Your task to perform on an android device: Open settings Image 0: 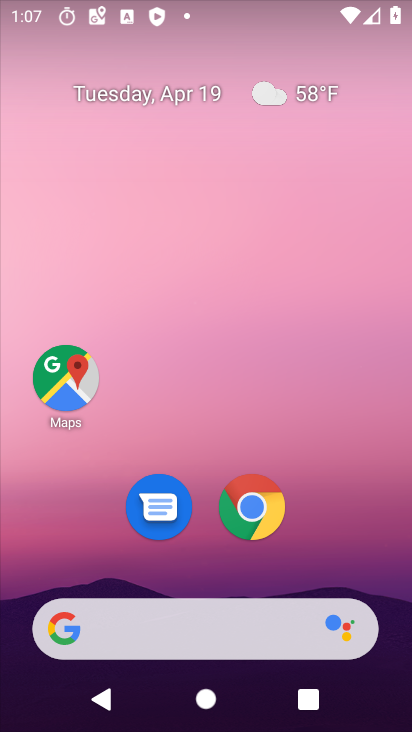
Step 0: drag from (214, 565) to (193, 48)
Your task to perform on an android device: Open settings Image 1: 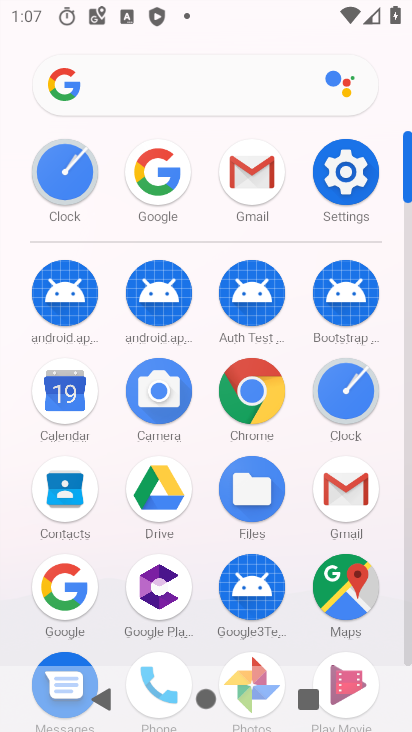
Step 1: click (348, 182)
Your task to perform on an android device: Open settings Image 2: 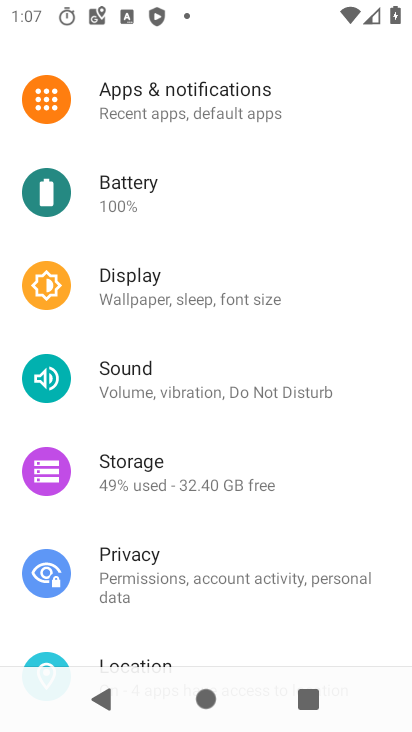
Step 2: task complete